Your task to perform on an android device: Open accessibility settings Image 0: 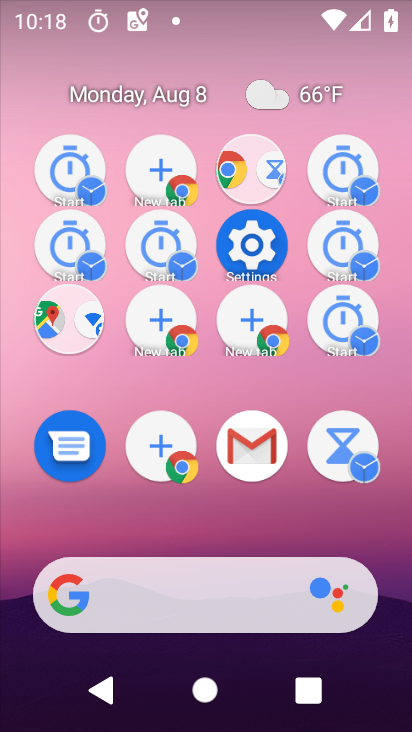
Step 0: click (193, 285)
Your task to perform on an android device: Open accessibility settings Image 1: 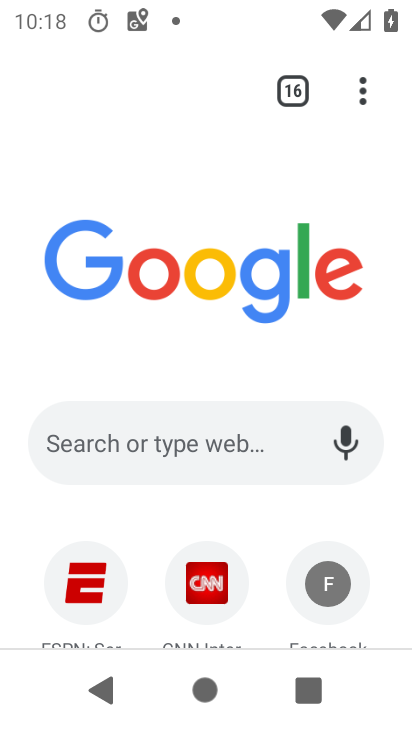
Step 1: drag from (249, 591) to (249, 251)
Your task to perform on an android device: Open accessibility settings Image 2: 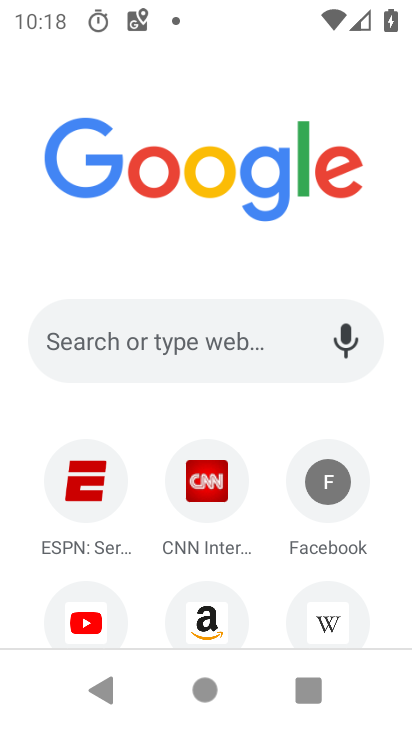
Step 2: press back button
Your task to perform on an android device: Open accessibility settings Image 3: 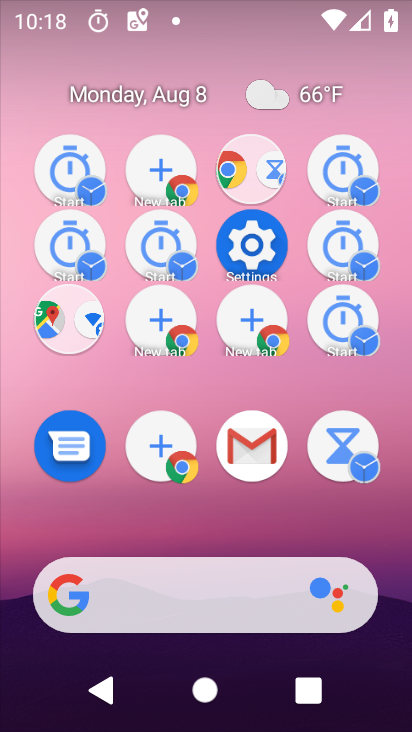
Step 3: drag from (225, 160) to (221, 115)
Your task to perform on an android device: Open accessibility settings Image 4: 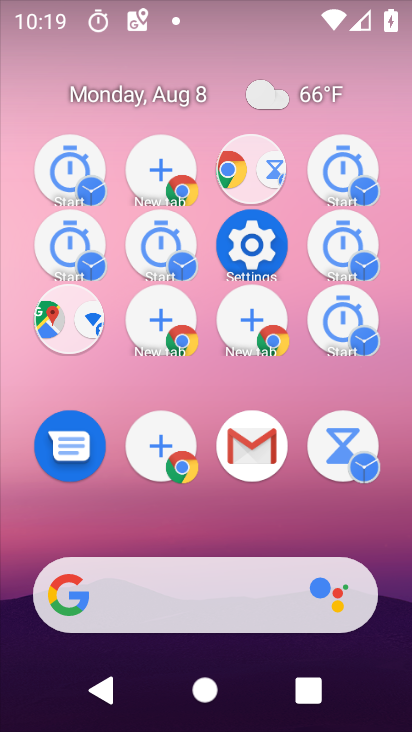
Step 4: drag from (247, 641) to (232, 225)
Your task to perform on an android device: Open accessibility settings Image 5: 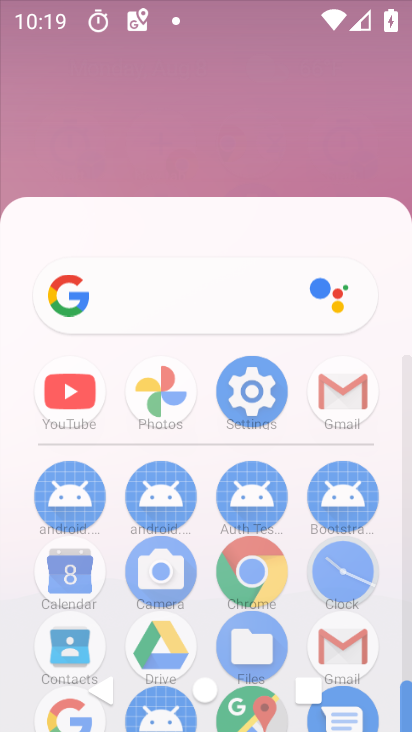
Step 5: click (232, 100)
Your task to perform on an android device: Open accessibility settings Image 6: 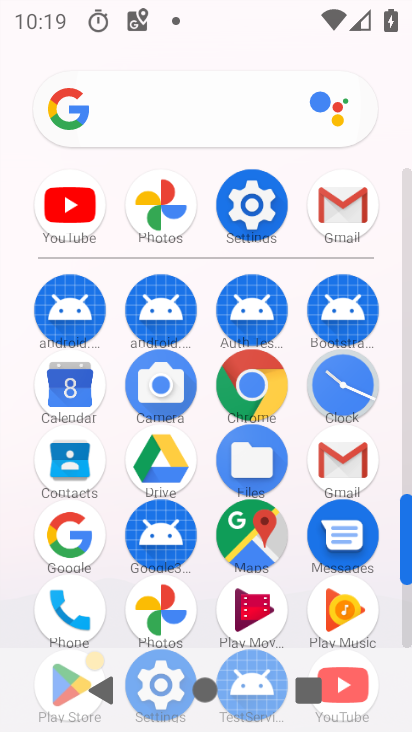
Step 6: drag from (258, 311) to (258, 186)
Your task to perform on an android device: Open accessibility settings Image 7: 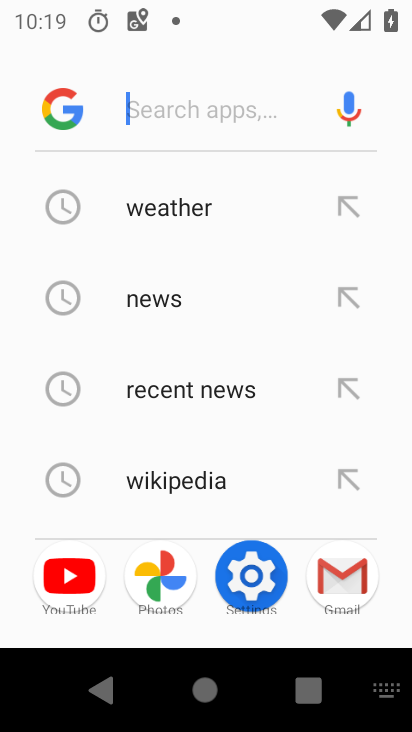
Step 7: click (243, 582)
Your task to perform on an android device: Open accessibility settings Image 8: 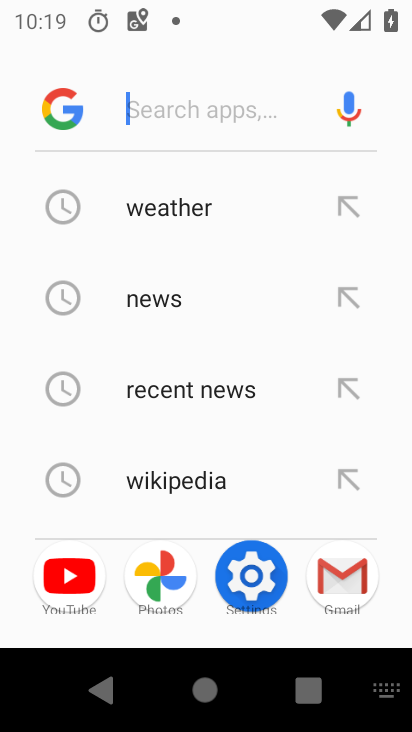
Step 8: click (242, 584)
Your task to perform on an android device: Open accessibility settings Image 9: 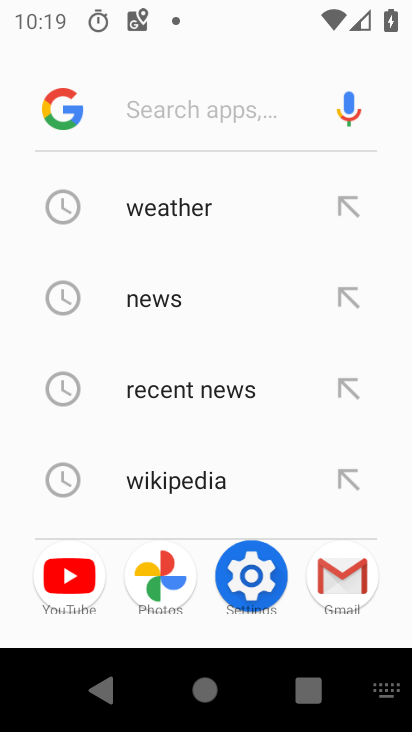
Step 9: click (243, 572)
Your task to perform on an android device: Open accessibility settings Image 10: 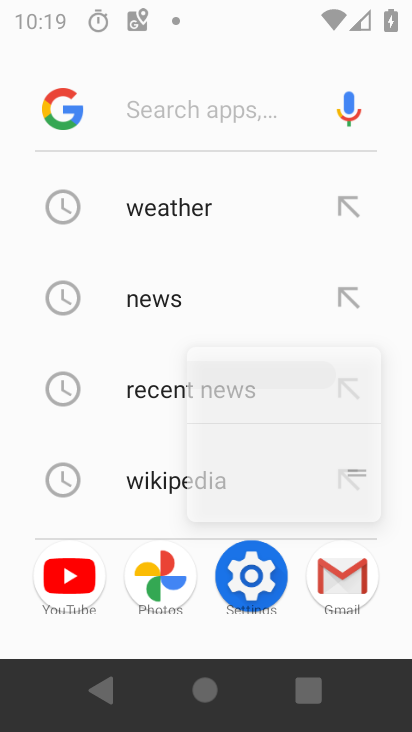
Step 10: click (247, 578)
Your task to perform on an android device: Open accessibility settings Image 11: 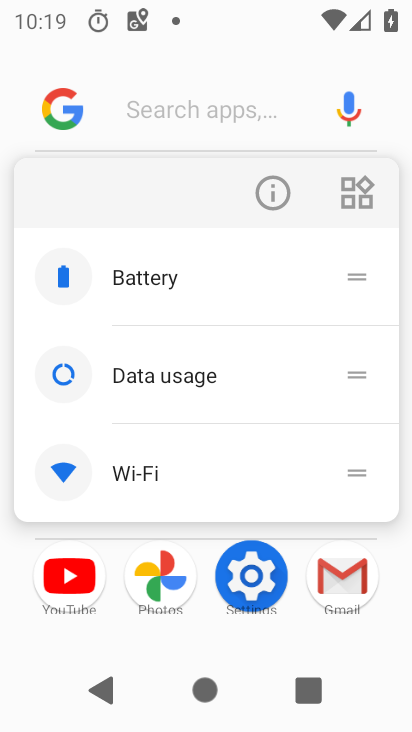
Step 11: click (248, 579)
Your task to perform on an android device: Open accessibility settings Image 12: 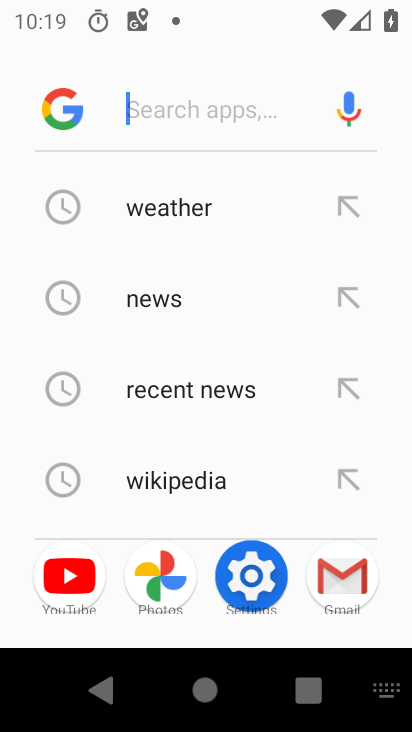
Step 12: click (246, 602)
Your task to perform on an android device: Open accessibility settings Image 13: 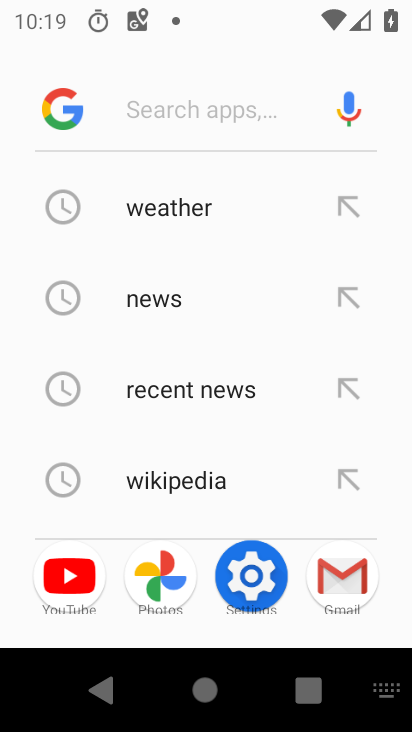
Step 13: click (246, 603)
Your task to perform on an android device: Open accessibility settings Image 14: 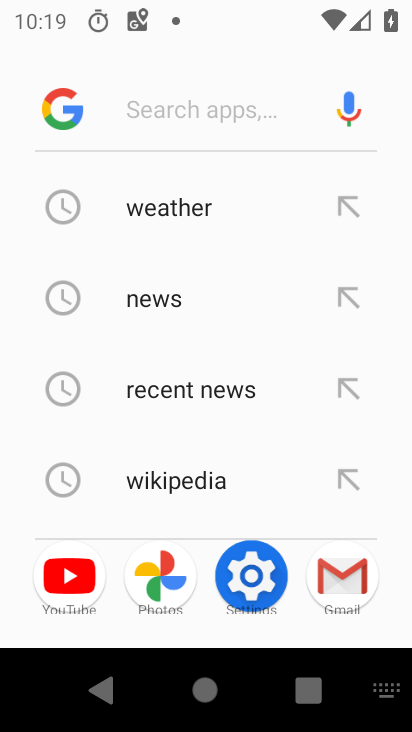
Step 14: click (251, 598)
Your task to perform on an android device: Open accessibility settings Image 15: 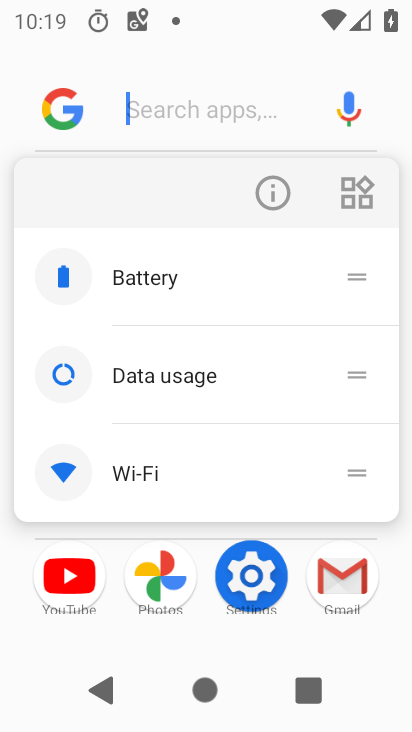
Step 15: click (250, 596)
Your task to perform on an android device: Open accessibility settings Image 16: 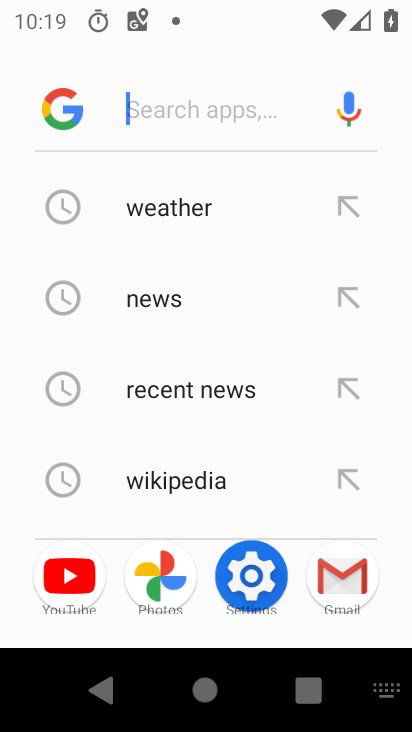
Step 16: click (248, 589)
Your task to perform on an android device: Open accessibility settings Image 17: 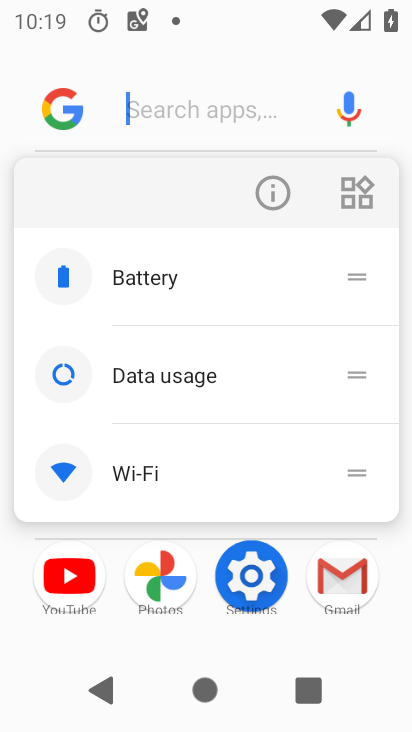
Step 17: press back button
Your task to perform on an android device: Open accessibility settings Image 18: 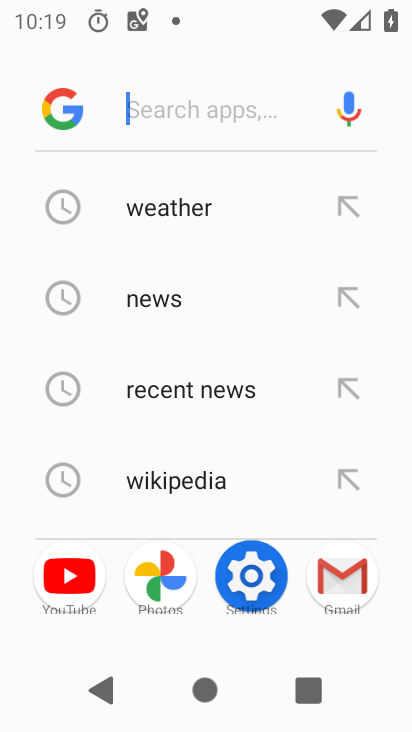
Step 18: press back button
Your task to perform on an android device: Open accessibility settings Image 19: 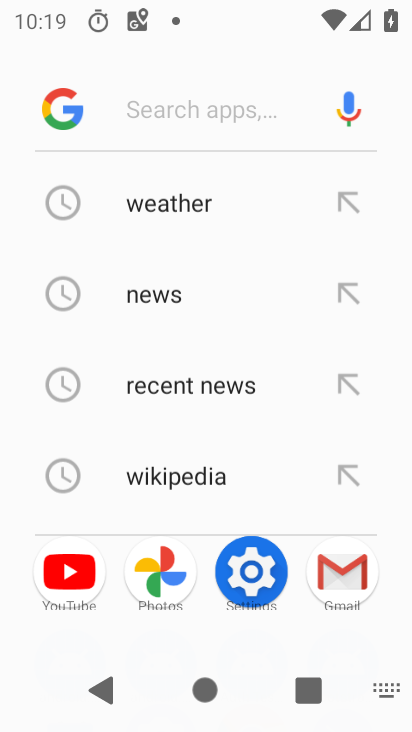
Step 19: press back button
Your task to perform on an android device: Open accessibility settings Image 20: 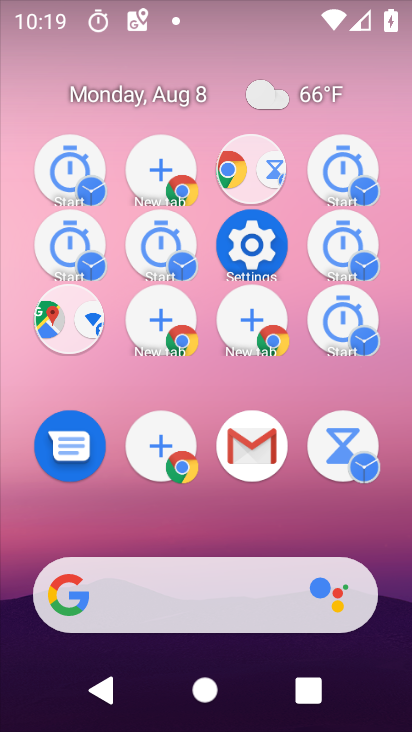
Step 20: drag from (253, 579) to (229, 242)
Your task to perform on an android device: Open accessibility settings Image 21: 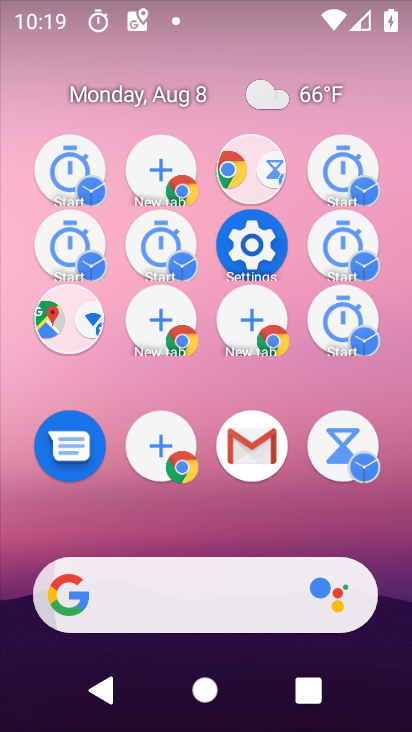
Step 21: drag from (223, 528) to (226, 240)
Your task to perform on an android device: Open accessibility settings Image 22: 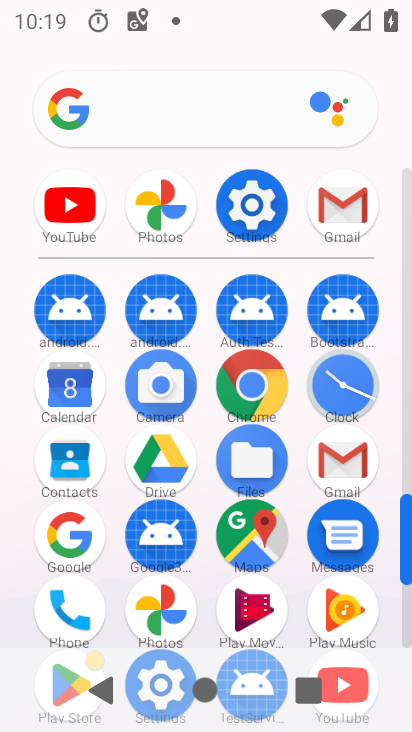
Step 22: click (250, 200)
Your task to perform on an android device: Open accessibility settings Image 23: 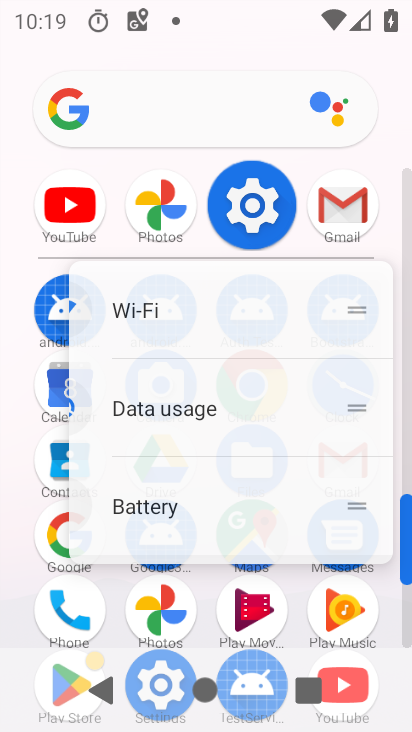
Step 23: click (255, 201)
Your task to perform on an android device: Open accessibility settings Image 24: 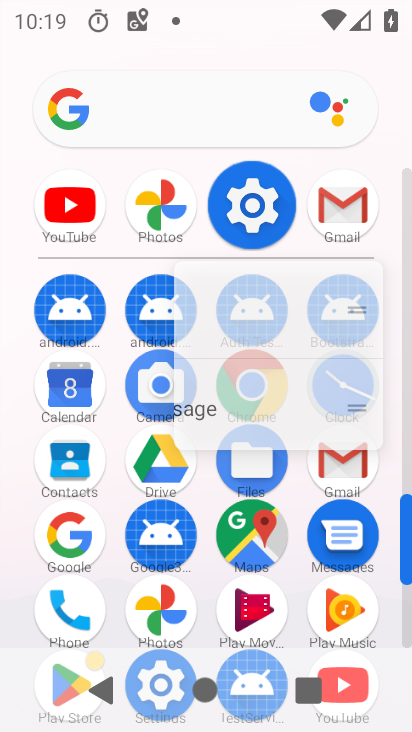
Step 24: click (273, 226)
Your task to perform on an android device: Open accessibility settings Image 25: 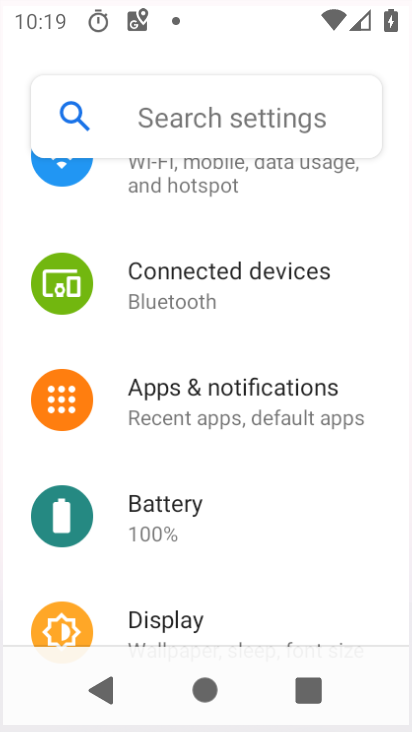
Step 25: click (269, 223)
Your task to perform on an android device: Open accessibility settings Image 26: 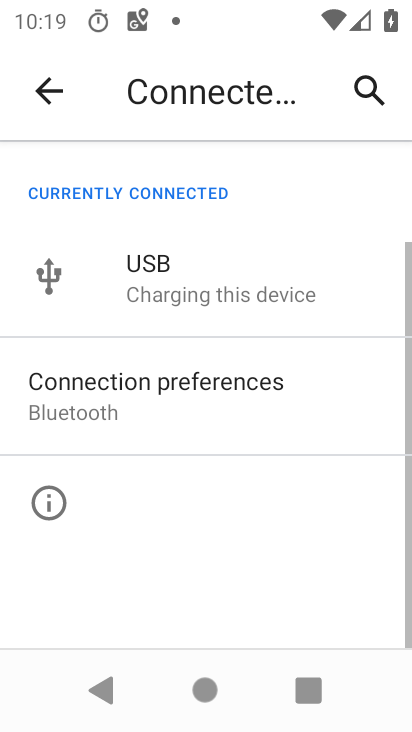
Step 26: click (49, 103)
Your task to perform on an android device: Open accessibility settings Image 27: 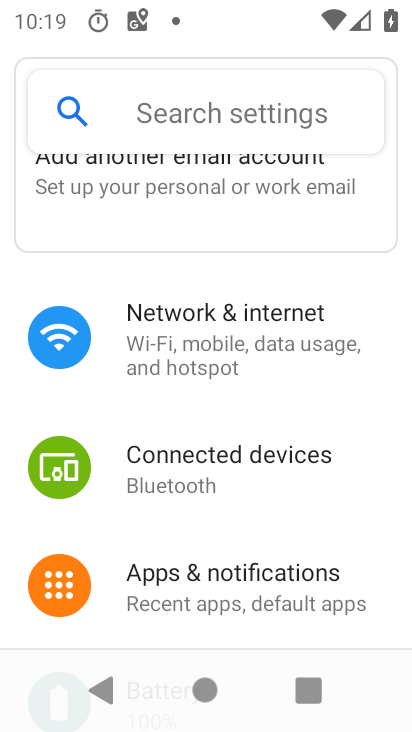
Step 27: click (218, 356)
Your task to perform on an android device: Open accessibility settings Image 28: 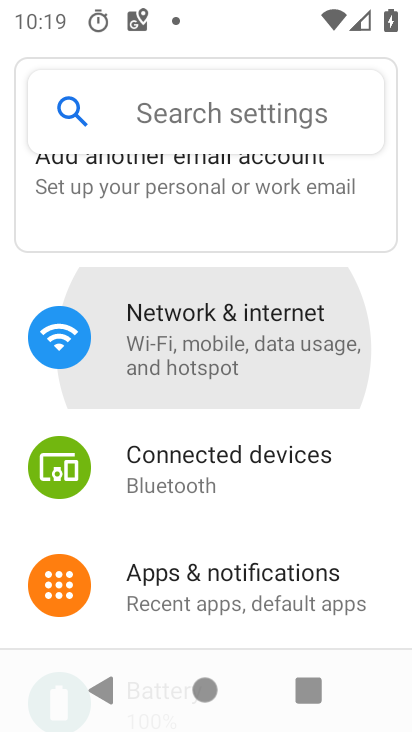
Step 28: drag from (211, 502) to (225, 210)
Your task to perform on an android device: Open accessibility settings Image 29: 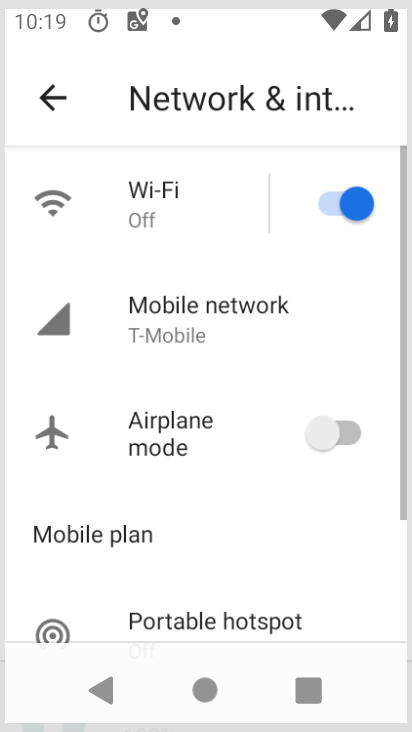
Step 29: drag from (241, 465) to (200, 148)
Your task to perform on an android device: Open accessibility settings Image 30: 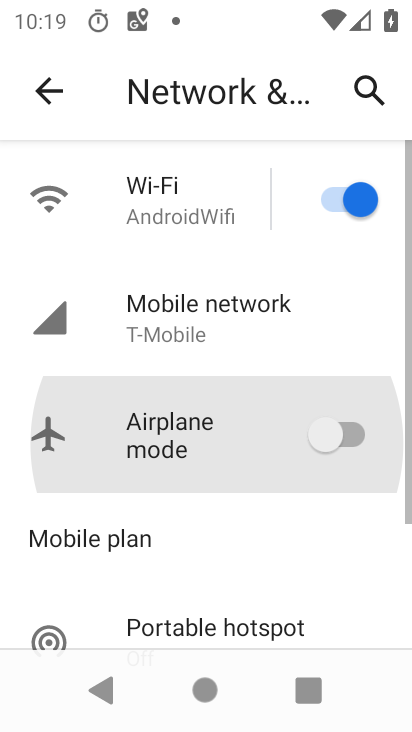
Step 30: drag from (237, 486) to (209, 158)
Your task to perform on an android device: Open accessibility settings Image 31: 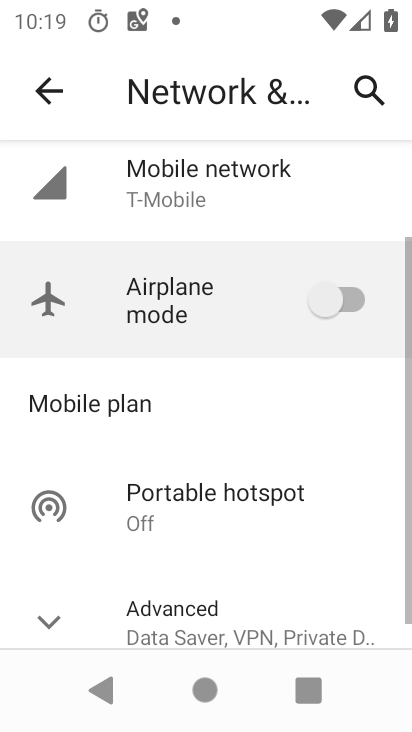
Step 31: drag from (214, 508) to (191, 288)
Your task to perform on an android device: Open accessibility settings Image 32: 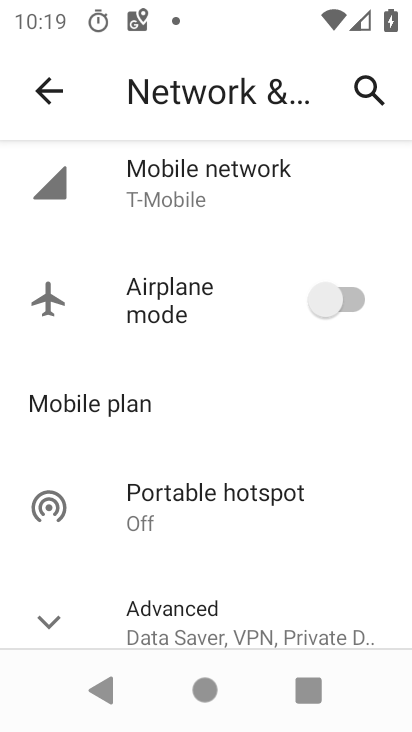
Step 32: click (62, 79)
Your task to perform on an android device: Open accessibility settings Image 33: 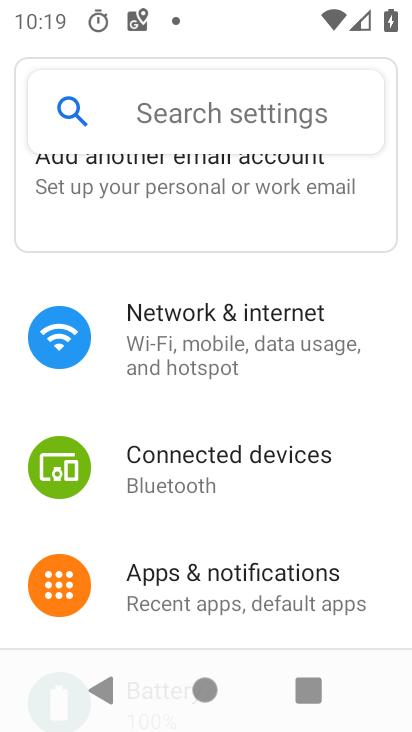
Step 33: drag from (224, 562) to (215, 236)
Your task to perform on an android device: Open accessibility settings Image 34: 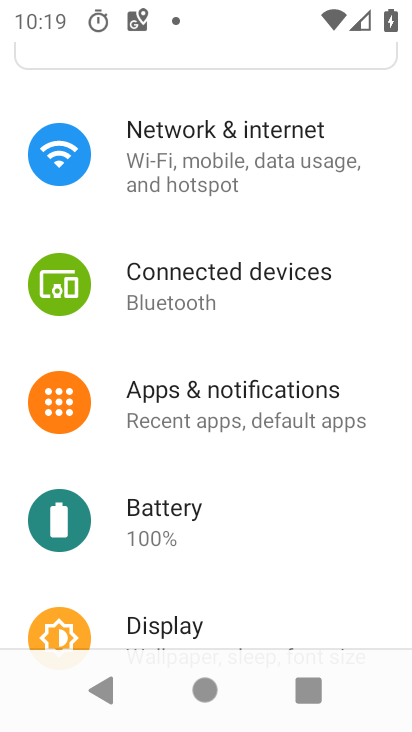
Step 34: drag from (224, 532) to (230, 320)
Your task to perform on an android device: Open accessibility settings Image 35: 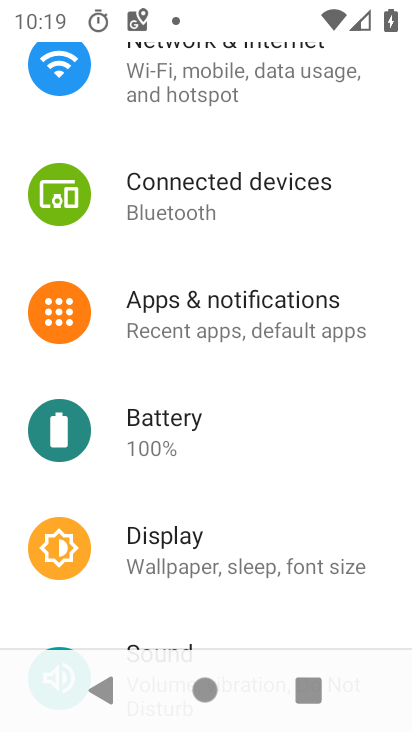
Step 35: drag from (268, 525) to (265, 236)
Your task to perform on an android device: Open accessibility settings Image 36: 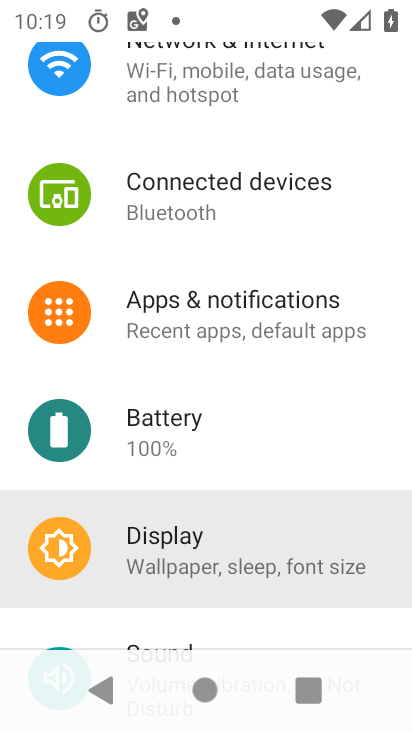
Step 36: drag from (286, 427) to (274, 252)
Your task to perform on an android device: Open accessibility settings Image 37: 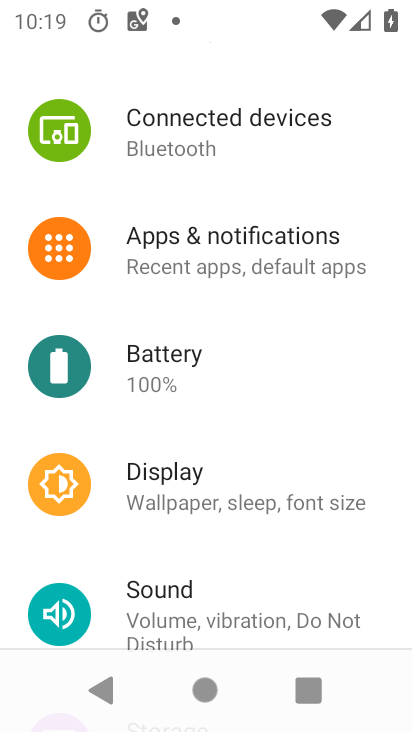
Step 37: drag from (192, 587) to (159, 267)
Your task to perform on an android device: Open accessibility settings Image 38: 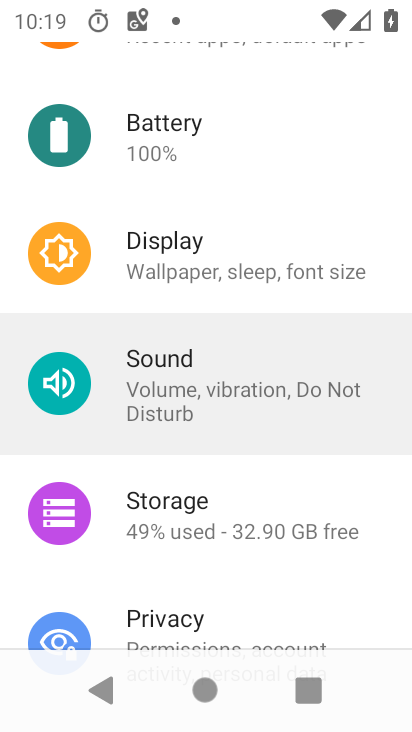
Step 38: drag from (229, 514) to (224, 227)
Your task to perform on an android device: Open accessibility settings Image 39: 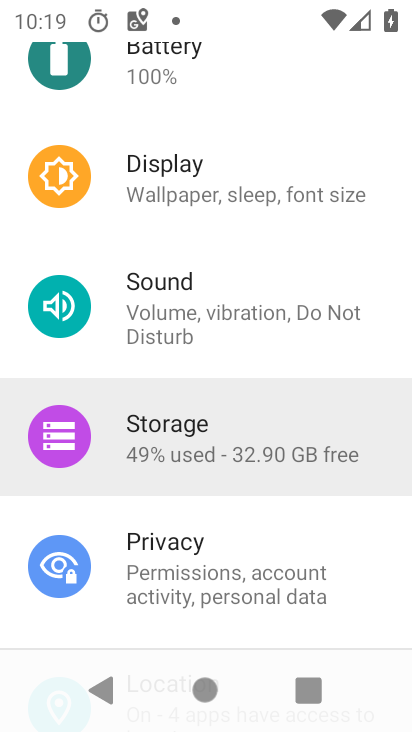
Step 39: drag from (235, 512) to (248, 286)
Your task to perform on an android device: Open accessibility settings Image 40: 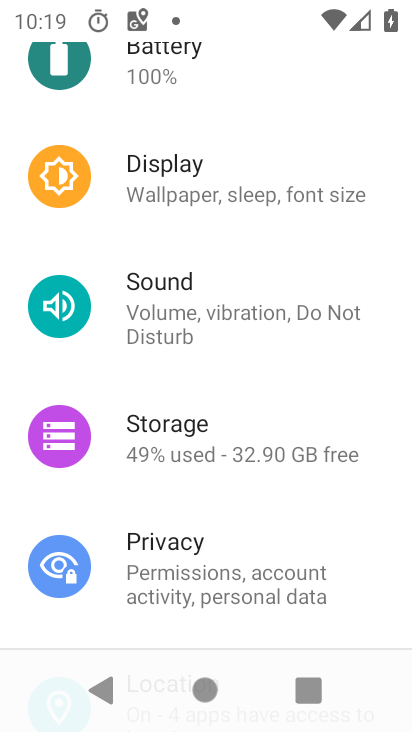
Step 40: drag from (285, 512) to (304, 241)
Your task to perform on an android device: Open accessibility settings Image 41: 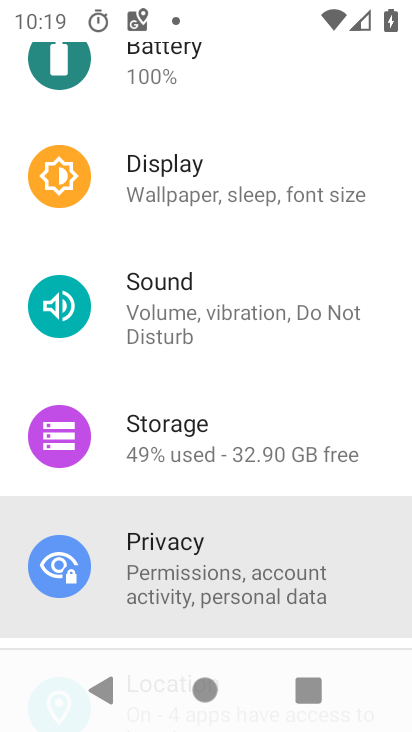
Step 41: drag from (288, 456) to (279, 199)
Your task to perform on an android device: Open accessibility settings Image 42: 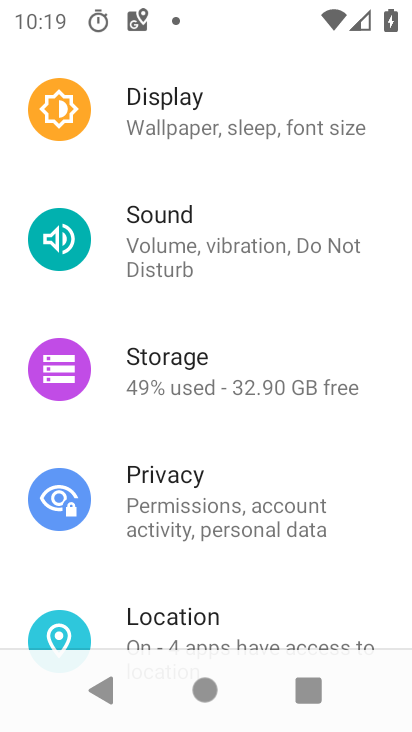
Step 42: drag from (242, 488) to (240, 321)
Your task to perform on an android device: Open accessibility settings Image 43: 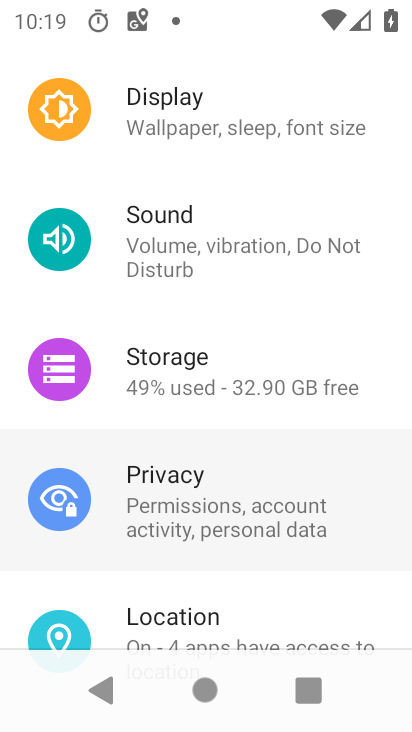
Step 43: drag from (222, 395) to (220, 247)
Your task to perform on an android device: Open accessibility settings Image 44: 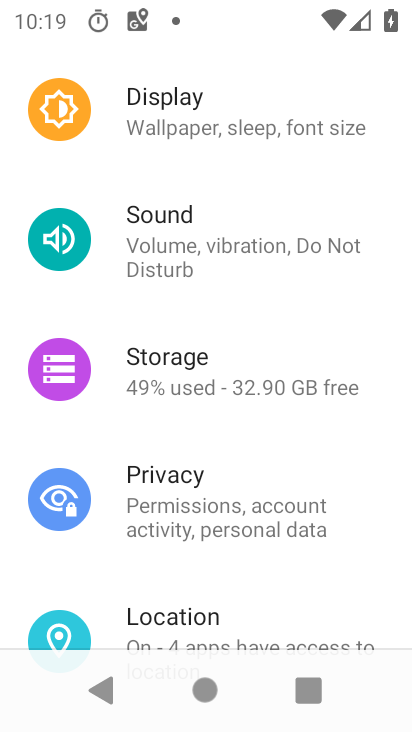
Step 44: drag from (227, 472) to (217, 276)
Your task to perform on an android device: Open accessibility settings Image 45: 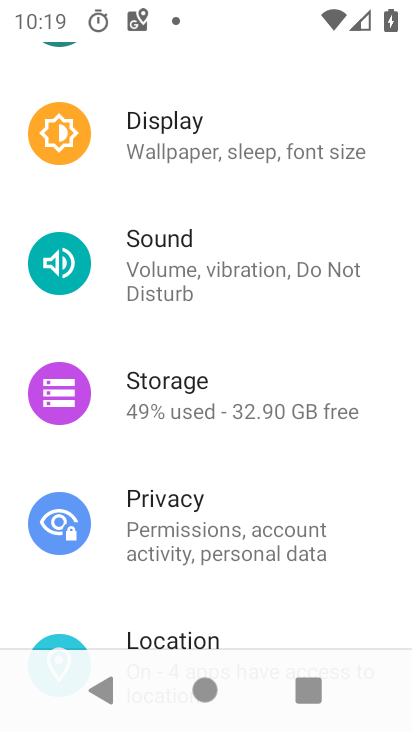
Step 45: click (256, 311)
Your task to perform on an android device: Open accessibility settings Image 46: 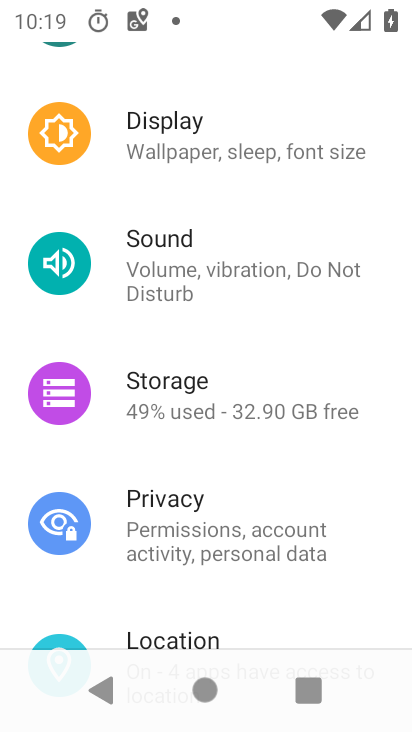
Step 46: drag from (261, 561) to (309, 259)
Your task to perform on an android device: Open accessibility settings Image 47: 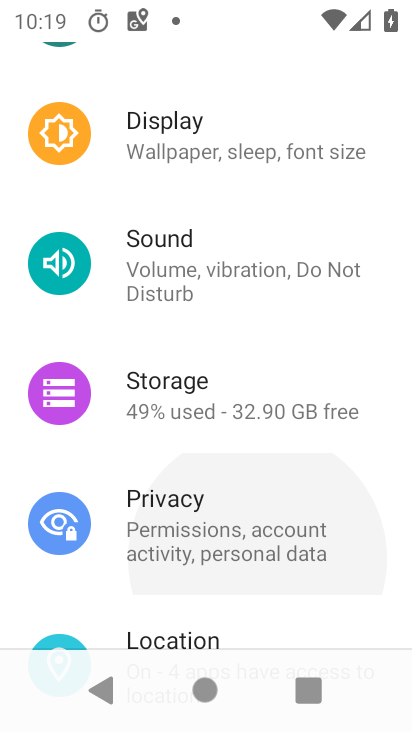
Step 47: drag from (286, 551) to (289, 268)
Your task to perform on an android device: Open accessibility settings Image 48: 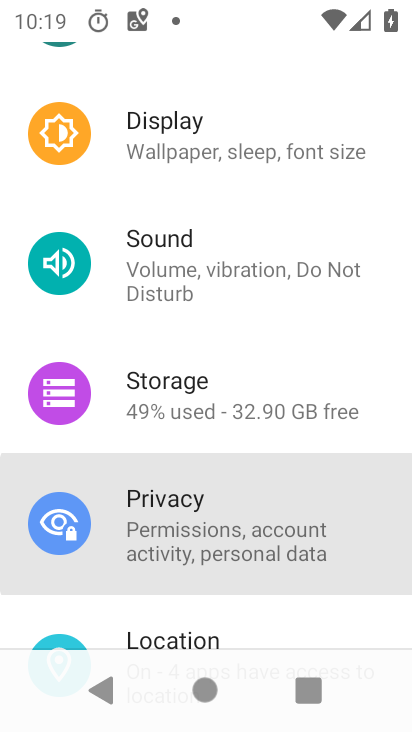
Step 48: drag from (282, 427) to (272, 231)
Your task to perform on an android device: Open accessibility settings Image 49: 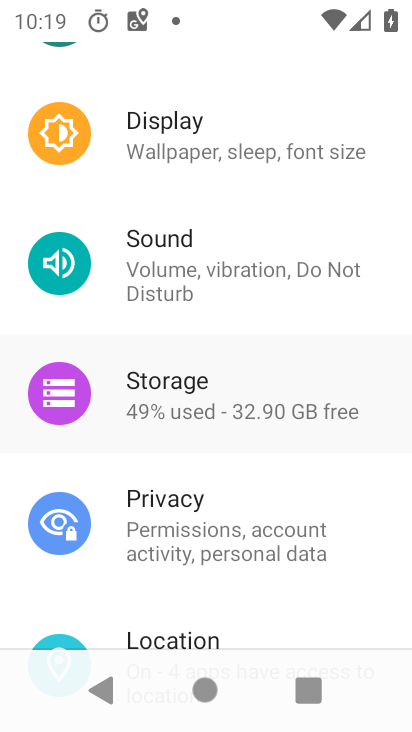
Step 49: drag from (261, 465) to (274, 157)
Your task to perform on an android device: Open accessibility settings Image 50: 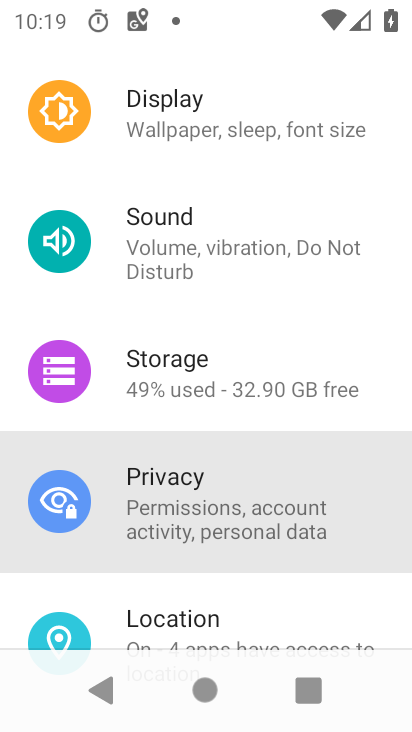
Step 50: drag from (265, 496) to (251, 223)
Your task to perform on an android device: Open accessibility settings Image 51: 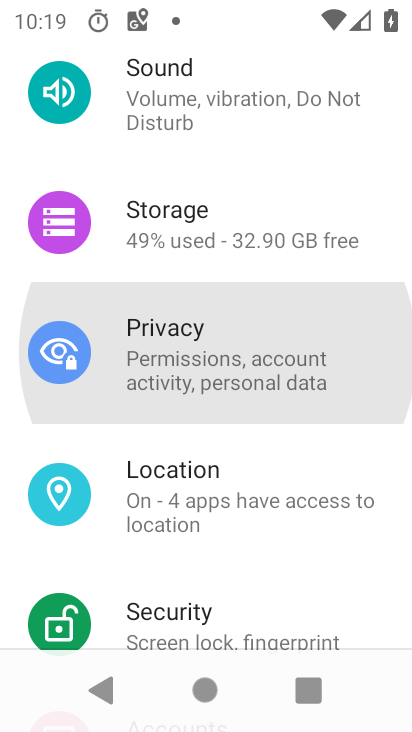
Step 51: drag from (251, 545) to (261, 238)
Your task to perform on an android device: Open accessibility settings Image 52: 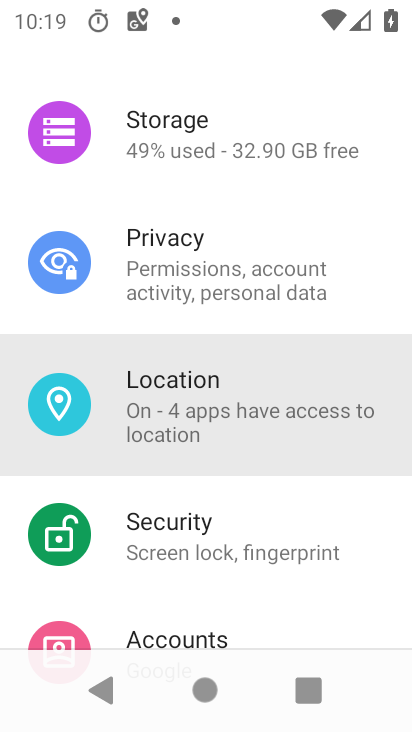
Step 52: drag from (296, 453) to (296, 220)
Your task to perform on an android device: Open accessibility settings Image 53: 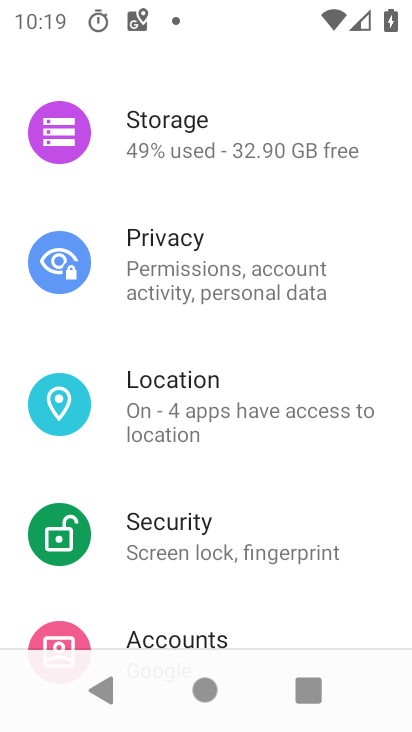
Step 53: drag from (283, 454) to (263, 107)
Your task to perform on an android device: Open accessibility settings Image 54: 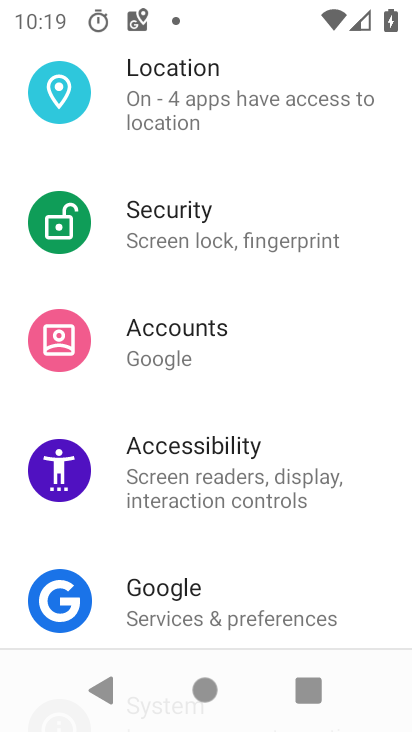
Step 54: drag from (262, 524) to (256, 143)
Your task to perform on an android device: Open accessibility settings Image 55: 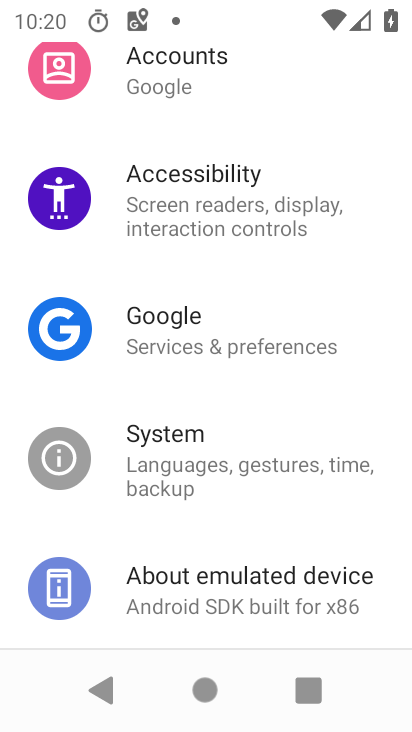
Step 55: drag from (221, 561) to (223, 301)
Your task to perform on an android device: Open accessibility settings Image 56: 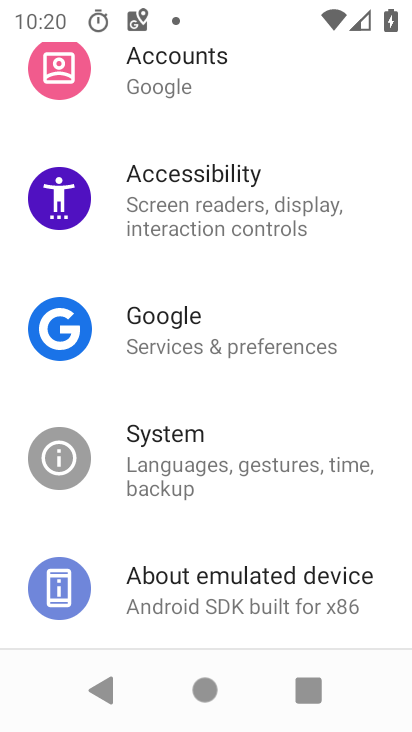
Step 56: click (193, 197)
Your task to perform on an android device: Open accessibility settings Image 57: 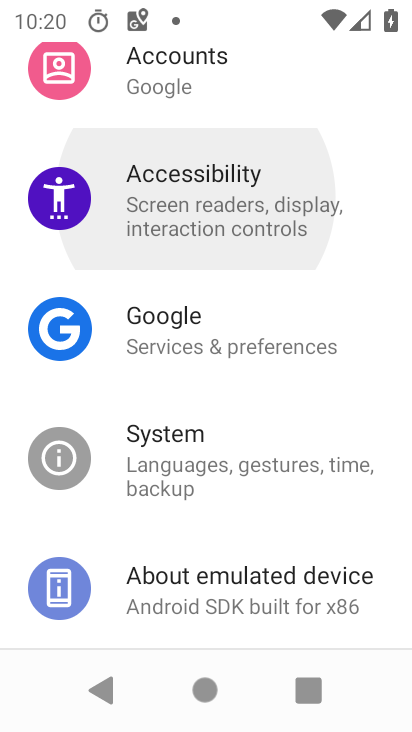
Step 57: click (193, 197)
Your task to perform on an android device: Open accessibility settings Image 58: 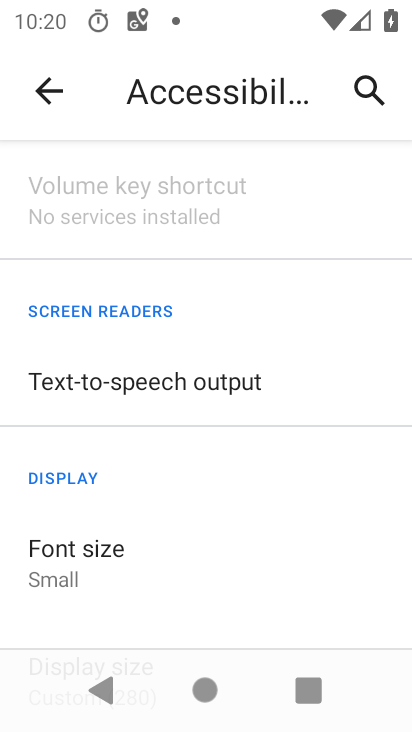
Step 58: task complete